Your task to perform on an android device: turn off smart reply in the gmail app Image 0: 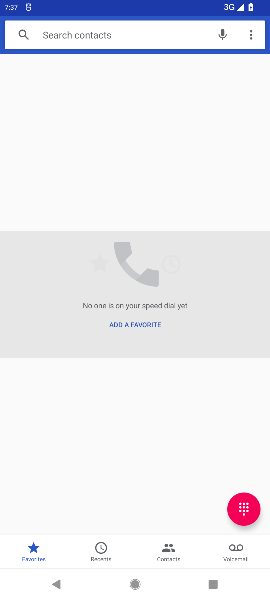
Step 0: press home button
Your task to perform on an android device: turn off smart reply in the gmail app Image 1: 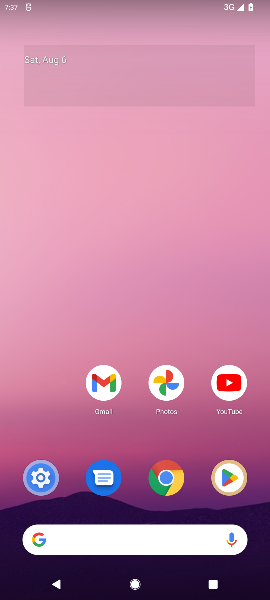
Step 1: click (105, 378)
Your task to perform on an android device: turn off smart reply in the gmail app Image 2: 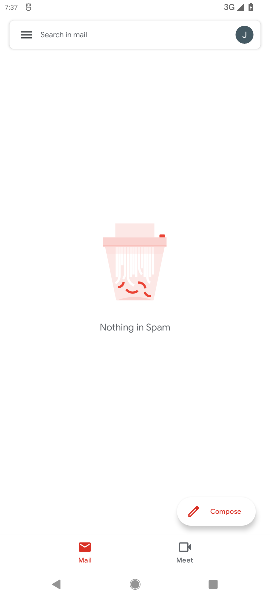
Step 2: click (22, 31)
Your task to perform on an android device: turn off smart reply in the gmail app Image 3: 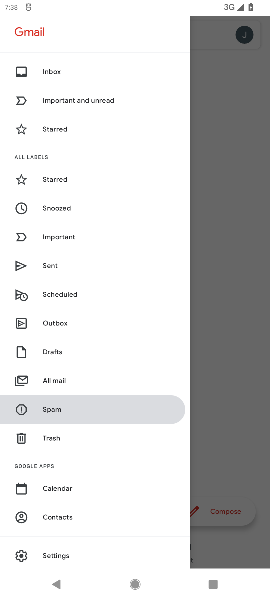
Step 3: click (44, 554)
Your task to perform on an android device: turn off smart reply in the gmail app Image 4: 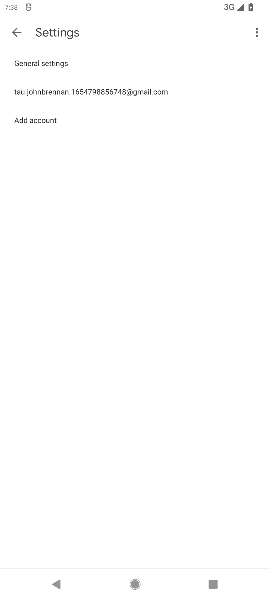
Step 4: click (29, 91)
Your task to perform on an android device: turn off smart reply in the gmail app Image 5: 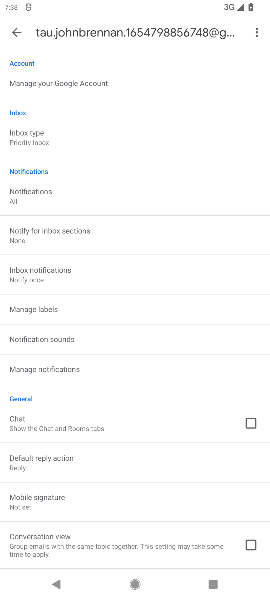
Step 5: drag from (98, 526) to (71, 202)
Your task to perform on an android device: turn off smart reply in the gmail app Image 6: 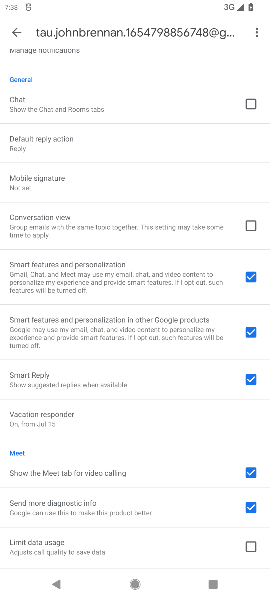
Step 6: click (253, 380)
Your task to perform on an android device: turn off smart reply in the gmail app Image 7: 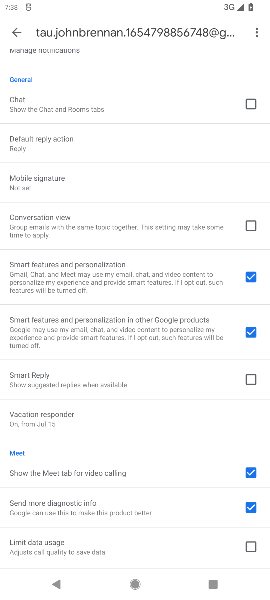
Step 7: task complete